Your task to perform on an android device: Open Google Chrome and click the shortcut for Amazon.com Image 0: 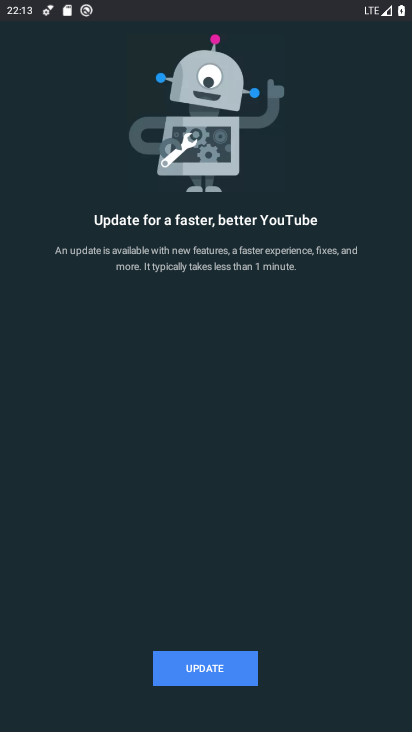
Step 0: press home button
Your task to perform on an android device: Open Google Chrome and click the shortcut for Amazon.com Image 1: 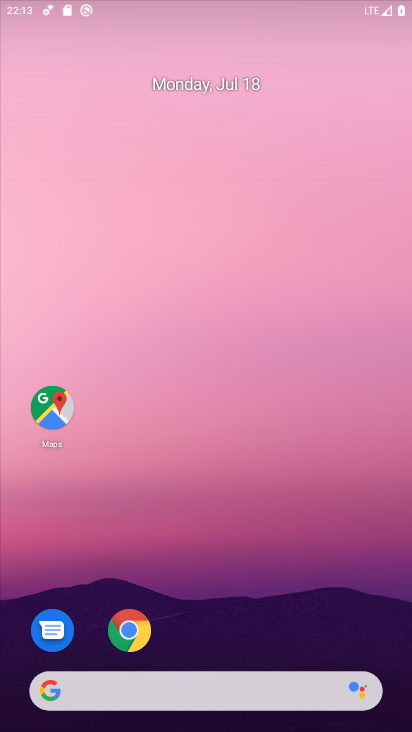
Step 1: drag from (234, 608) to (316, 246)
Your task to perform on an android device: Open Google Chrome and click the shortcut for Amazon.com Image 2: 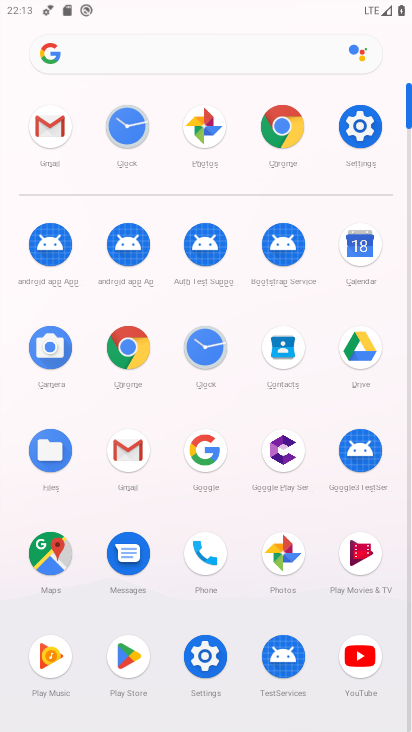
Step 2: click (119, 343)
Your task to perform on an android device: Open Google Chrome and click the shortcut for Amazon.com Image 3: 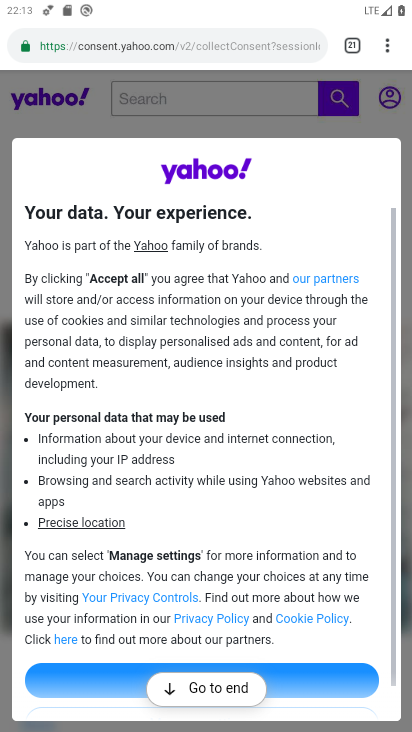
Step 3: click (384, 45)
Your task to perform on an android device: Open Google Chrome and click the shortcut for Amazon.com Image 4: 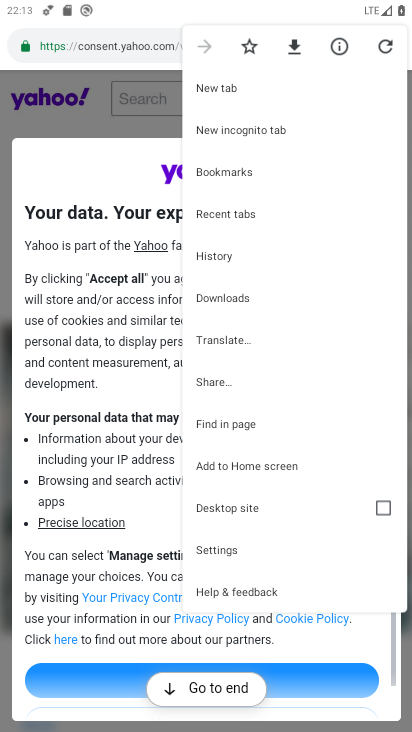
Step 4: click (243, 87)
Your task to perform on an android device: Open Google Chrome and click the shortcut for Amazon.com Image 5: 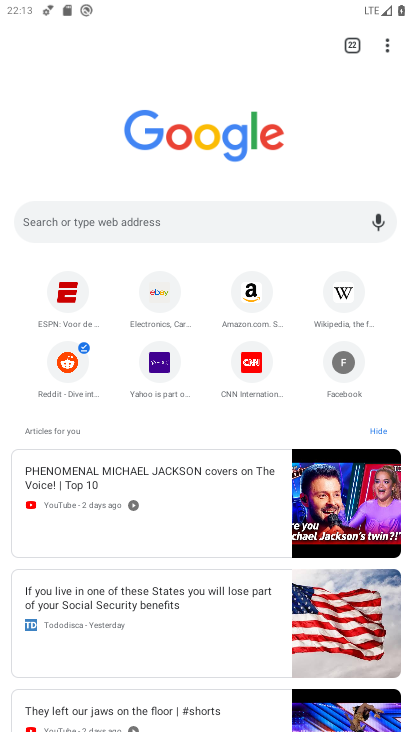
Step 5: click (243, 298)
Your task to perform on an android device: Open Google Chrome and click the shortcut for Amazon.com Image 6: 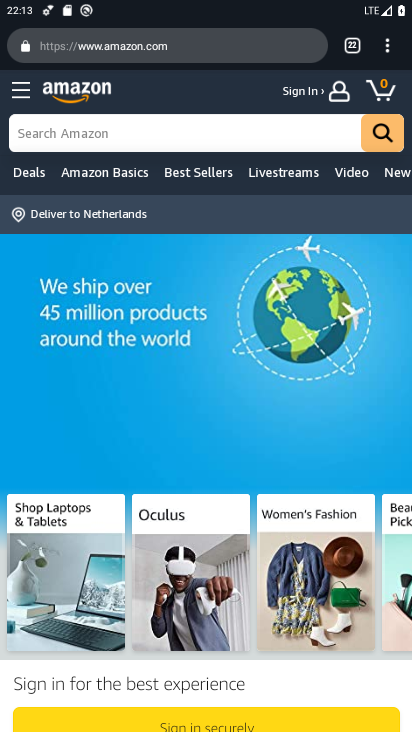
Step 6: task complete